Your task to perform on an android device: see sites visited before in the chrome app Image 0: 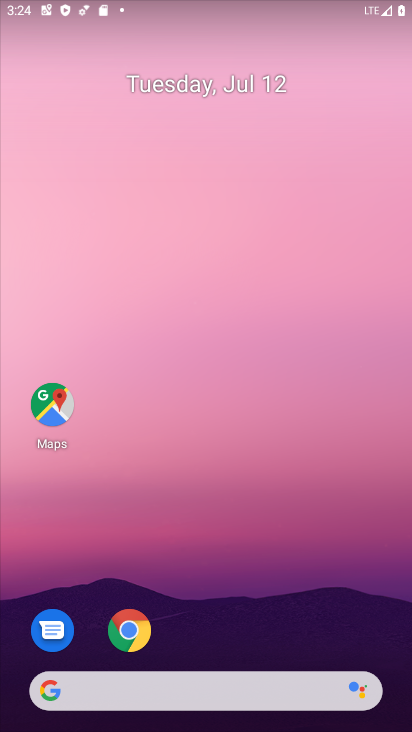
Step 0: drag from (265, 690) to (235, 23)
Your task to perform on an android device: see sites visited before in the chrome app Image 1: 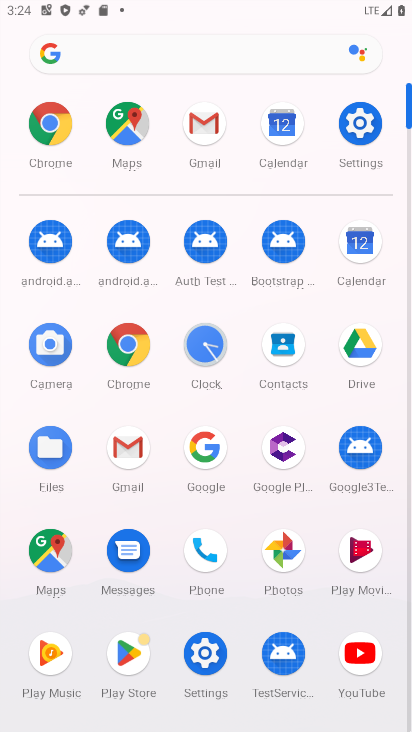
Step 1: click (123, 335)
Your task to perform on an android device: see sites visited before in the chrome app Image 2: 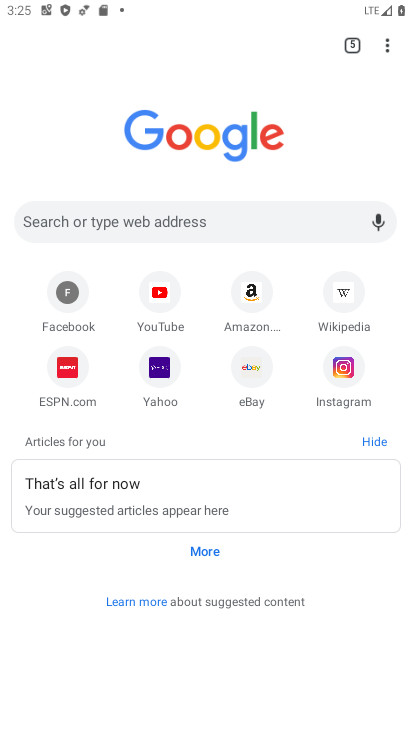
Step 2: task complete